Your task to perform on an android device: delete location history Image 0: 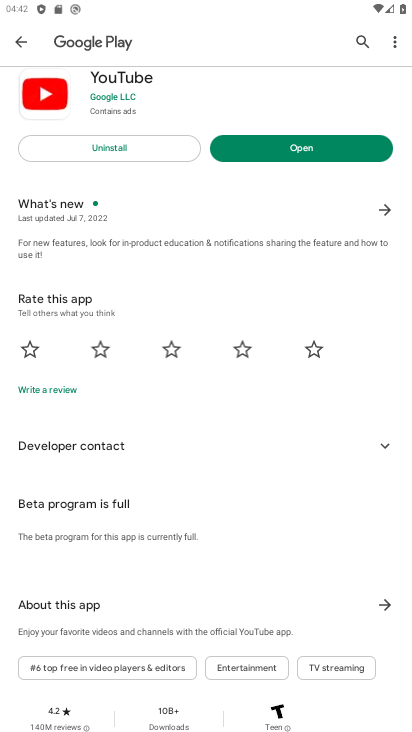
Step 0: press home button
Your task to perform on an android device: delete location history Image 1: 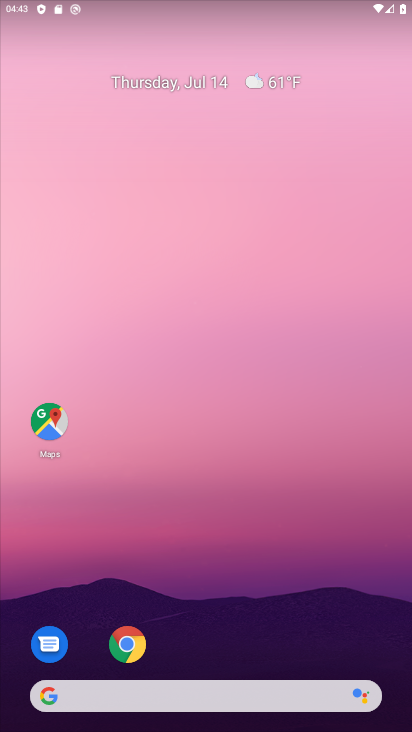
Step 1: click (44, 419)
Your task to perform on an android device: delete location history Image 2: 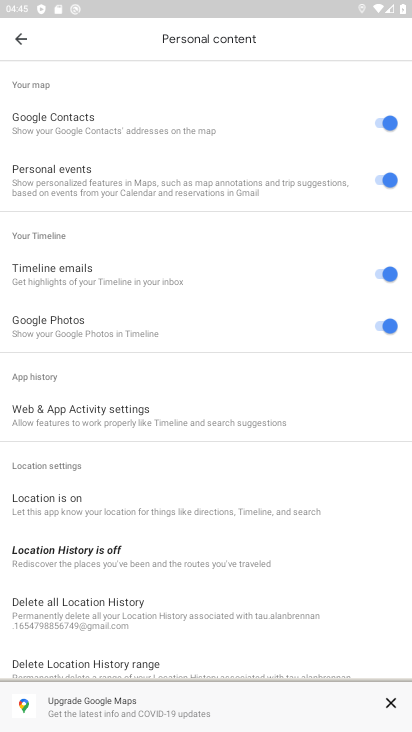
Step 2: click (87, 618)
Your task to perform on an android device: delete location history Image 3: 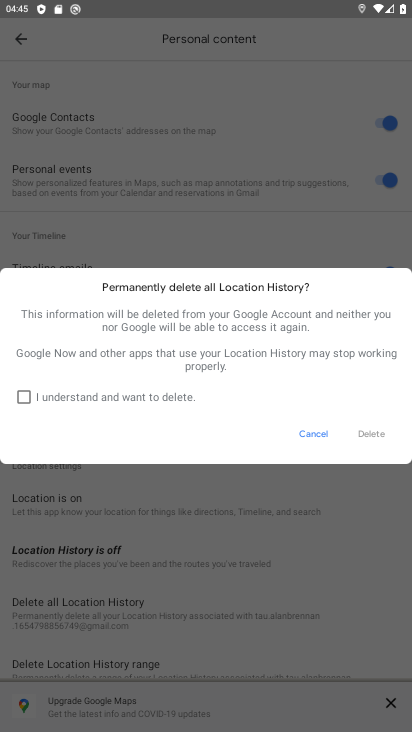
Step 3: click (176, 402)
Your task to perform on an android device: delete location history Image 4: 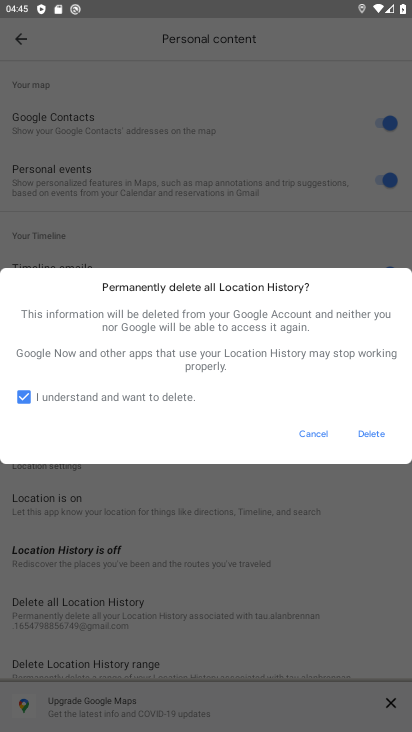
Step 4: click (366, 432)
Your task to perform on an android device: delete location history Image 5: 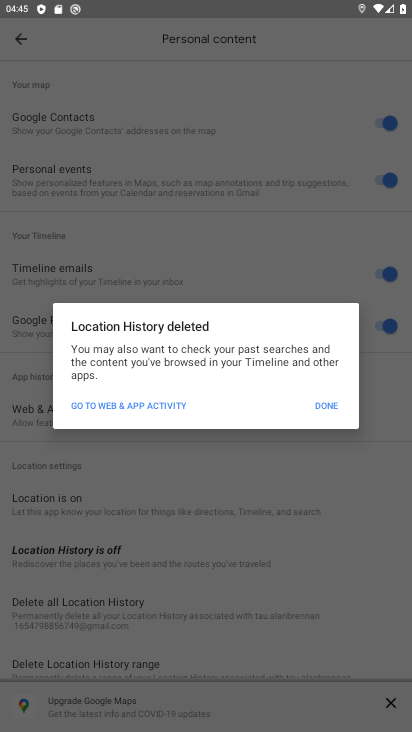
Step 5: click (319, 410)
Your task to perform on an android device: delete location history Image 6: 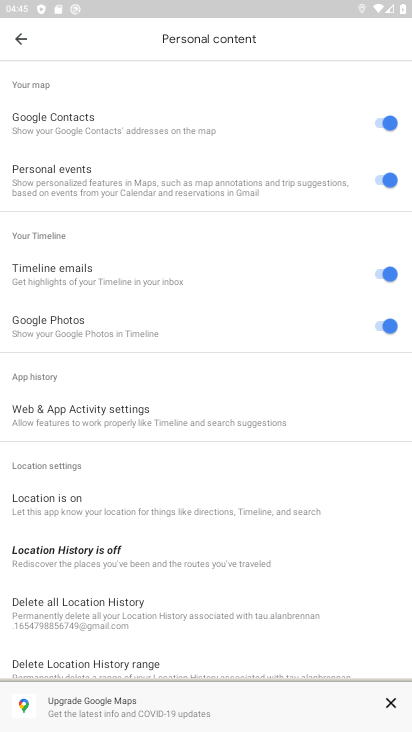
Step 6: task complete